Your task to perform on an android device: Open Yahoo.com Image 0: 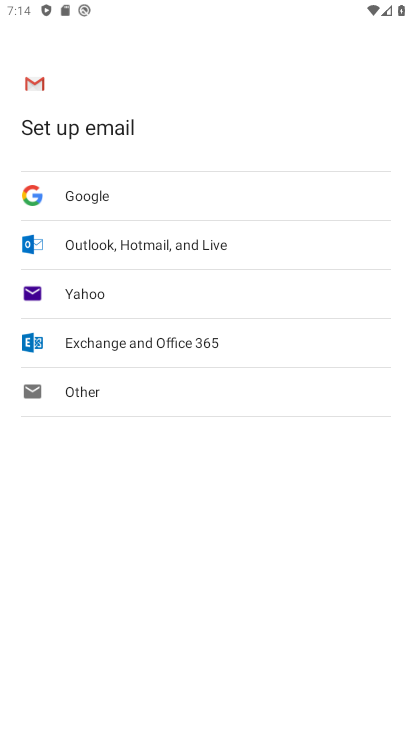
Step 0: press home button
Your task to perform on an android device: Open Yahoo.com Image 1: 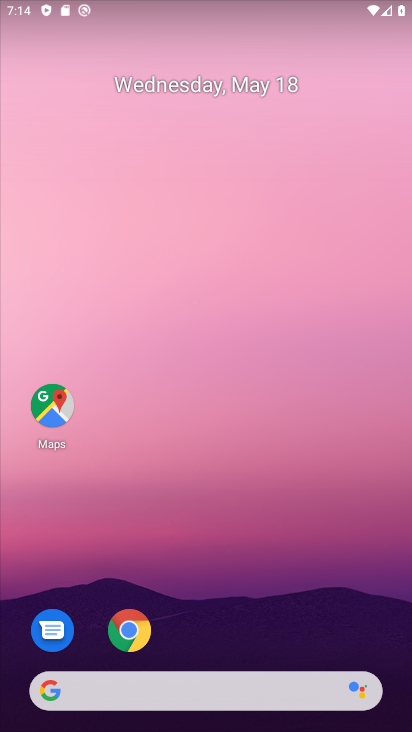
Step 1: click (123, 626)
Your task to perform on an android device: Open Yahoo.com Image 2: 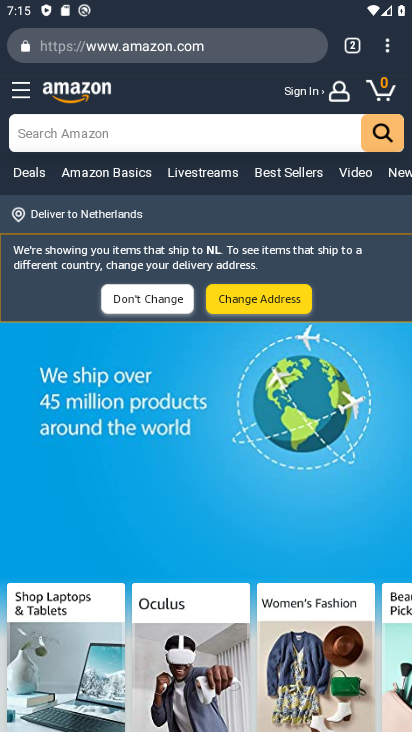
Step 2: click (393, 46)
Your task to perform on an android device: Open Yahoo.com Image 3: 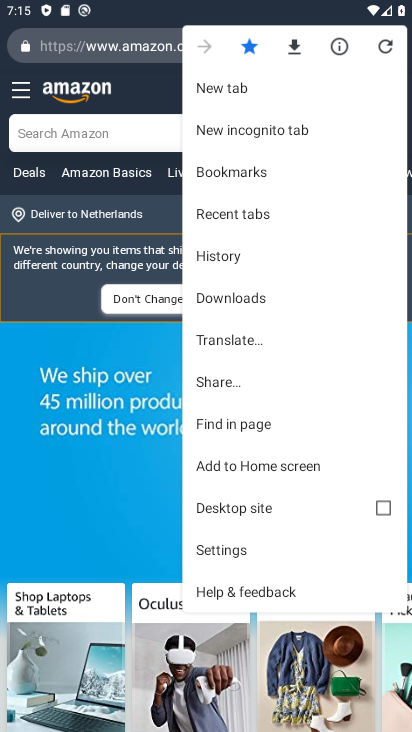
Step 3: click (223, 85)
Your task to perform on an android device: Open Yahoo.com Image 4: 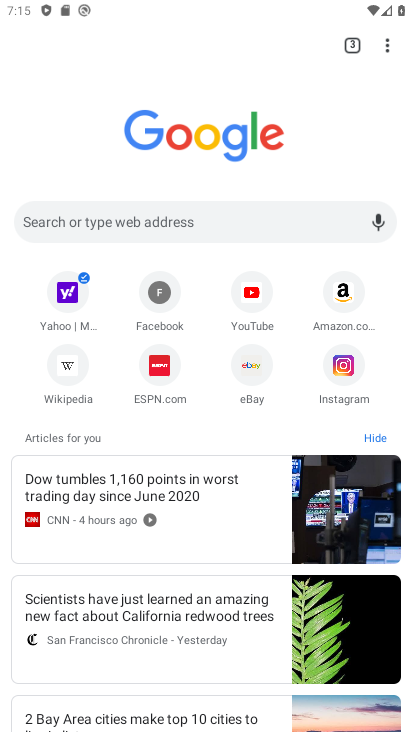
Step 4: click (62, 287)
Your task to perform on an android device: Open Yahoo.com Image 5: 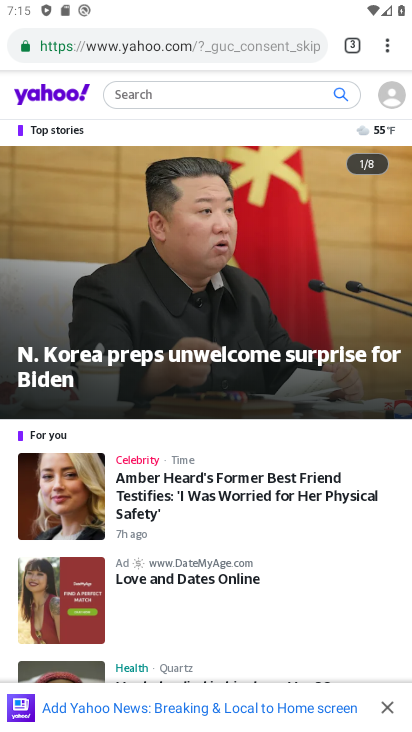
Step 5: task complete